Your task to perform on an android device: Do I have any events tomorrow? Image 0: 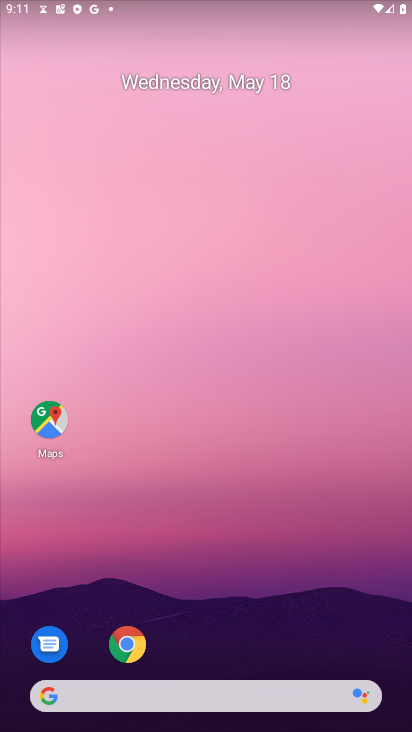
Step 0: drag from (220, 608) to (206, 103)
Your task to perform on an android device: Do I have any events tomorrow? Image 1: 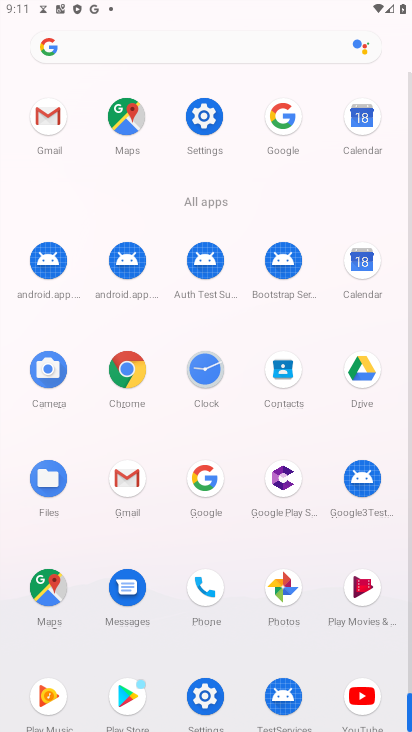
Step 1: click (363, 263)
Your task to perform on an android device: Do I have any events tomorrow? Image 2: 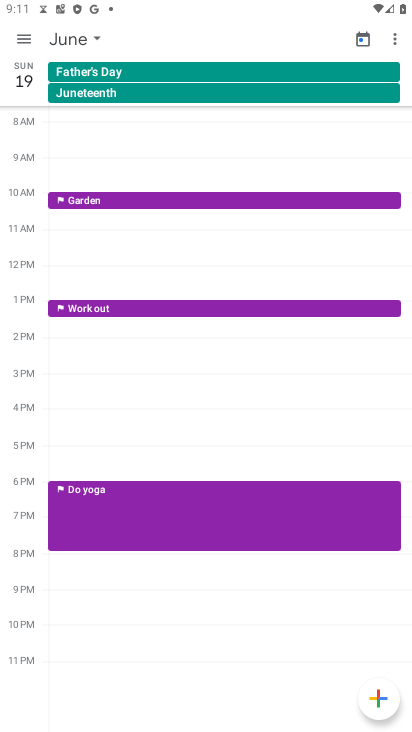
Step 2: click (366, 41)
Your task to perform on an android device: Do I have any events tomorrow? Image 3: 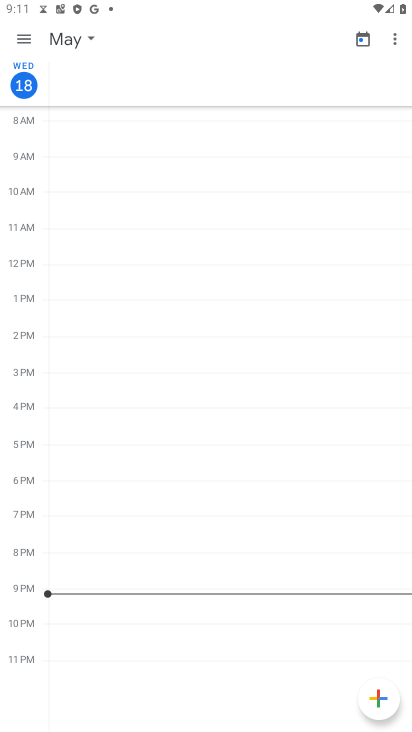
Step 3: click (84, 37)
Your task to perform on an android device: Do I have any events tomorrow? Image 4: 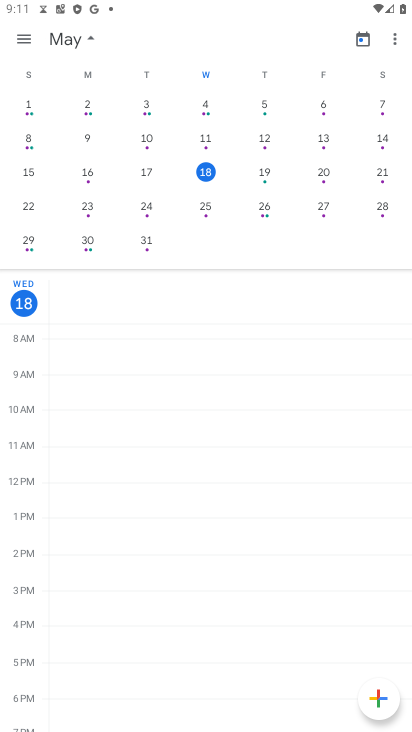
Step 4: click (265, 172)
Your task to perform on an android device: Do I have any events tomorrow? Image 5: 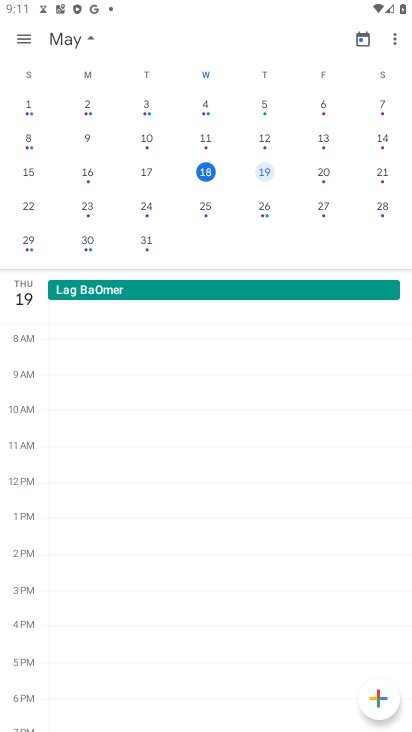
Step 5: click (23, 42)
Your task to perform on an android device: Do I have any events tomorrow? Image 6: 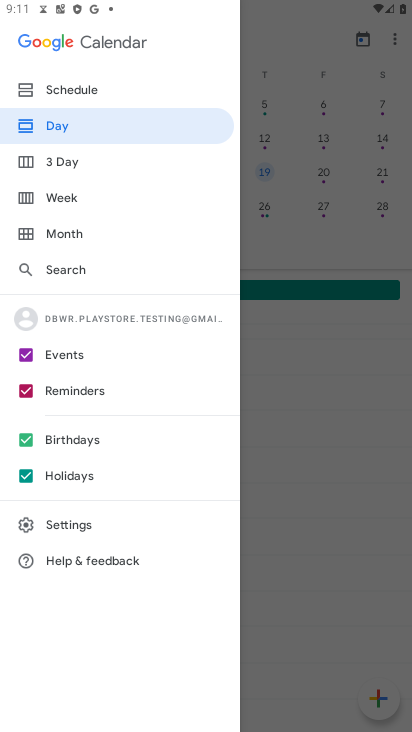
Step 6: click (54, 86)
Your task to perform on an android device: Do I have any events tomorrow? Image 7: 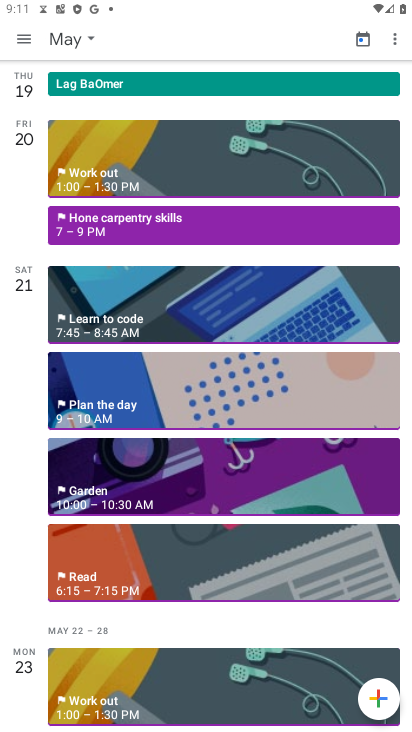
Step 7: task complete